Your task to perform on an android device: turn off location history Image 0: 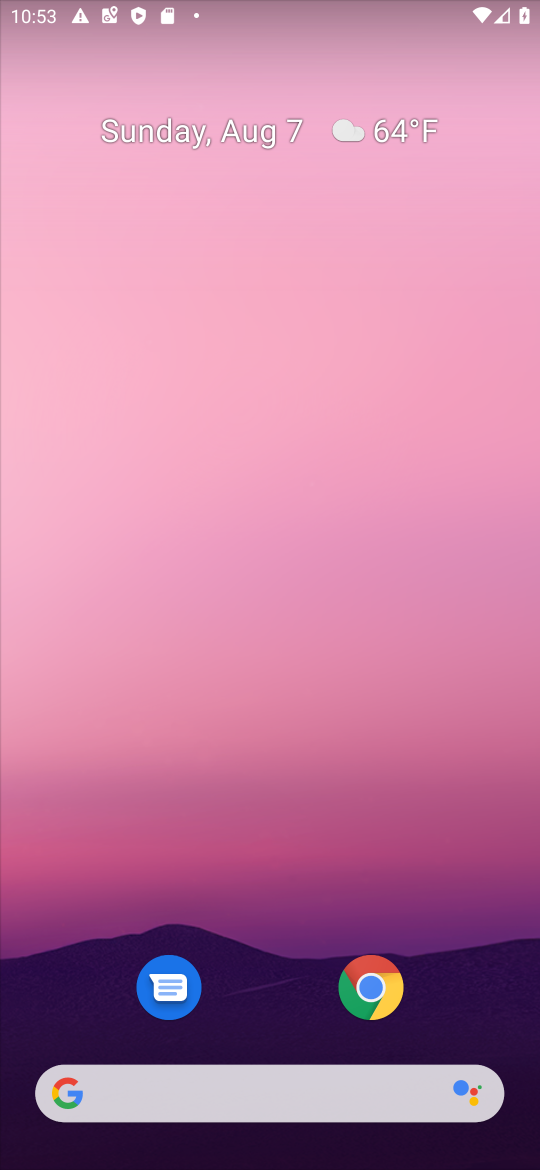
Step 0: drag from (251, 1020) to (147, 4)
Your task to perform on an android device: turn off location history Image 1: 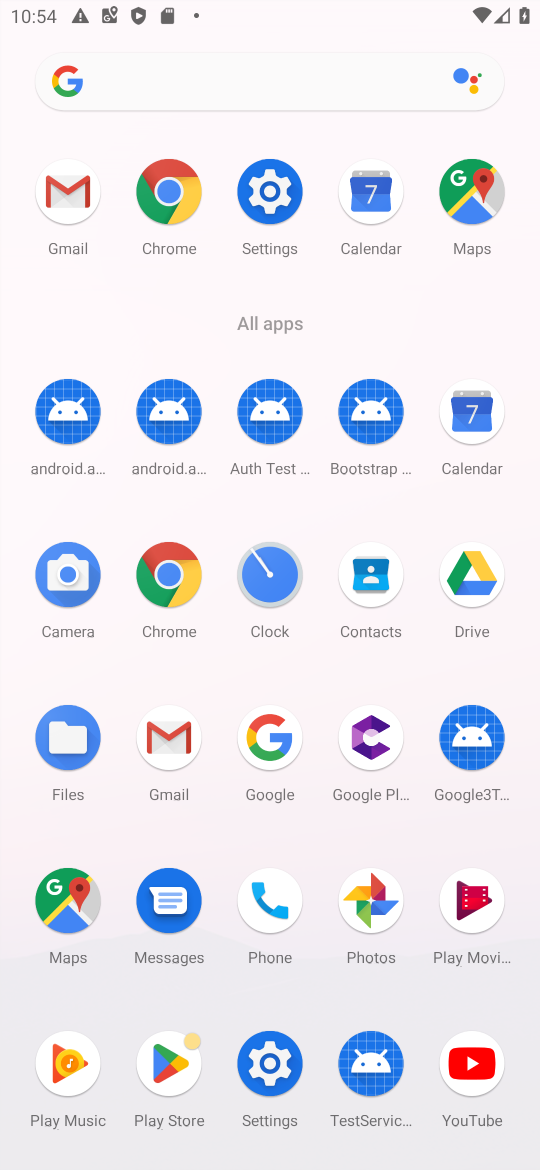
Step 1: click (274, 1065)
Your task to perform on an android device: turn off location history Image 2: 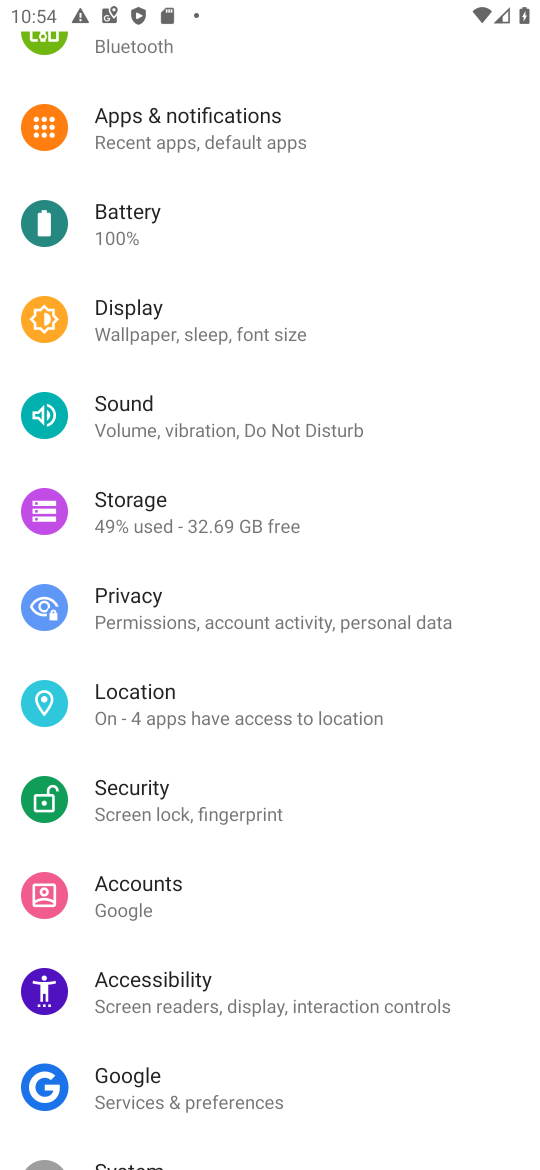
Step 2: click (236, 699)
Your task to perform on an android device: turn off location history Image 3: 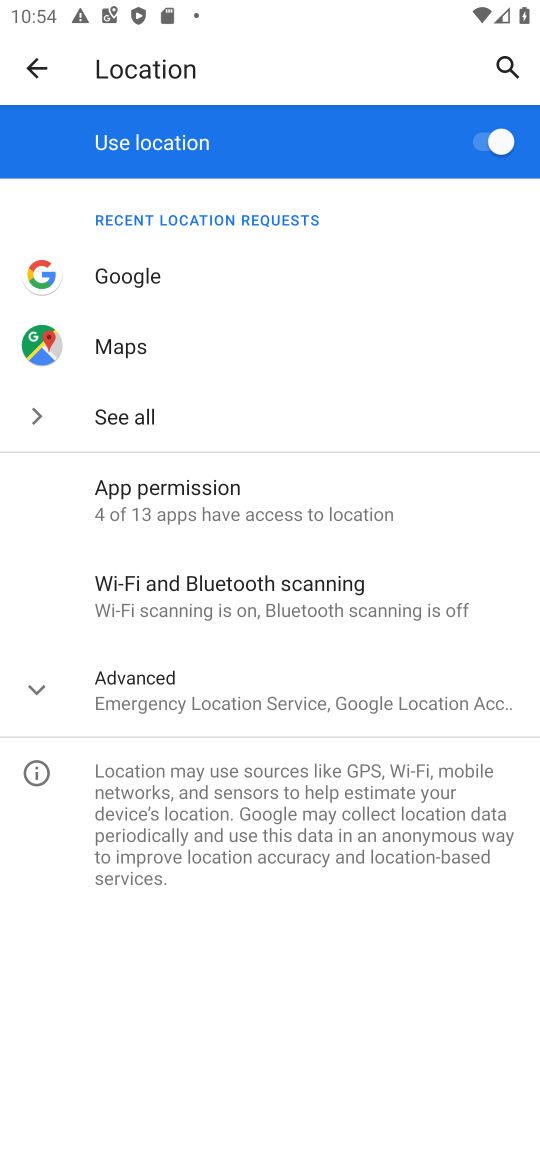
Step 3: click (367, 708)
Your task to perform on an android device: turn off location history Image 4: 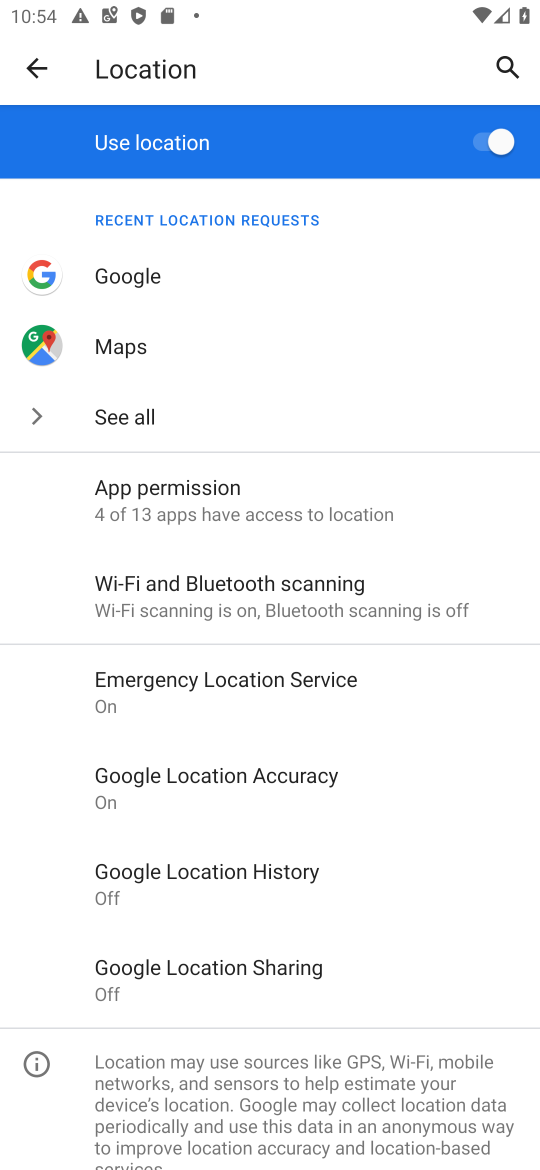
Step 4: click (286, 877)
Your task to perform on an android device: turn off location history Image 5: 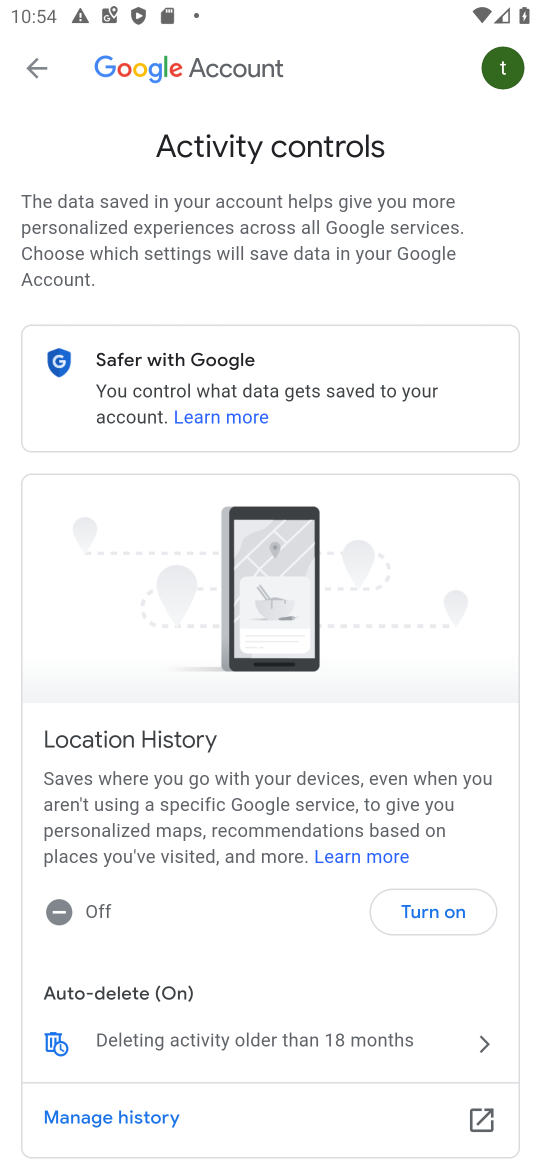
Step 5: task complete